Your task to perform on an android device: What's on my calendar tomorrow? Image 0: 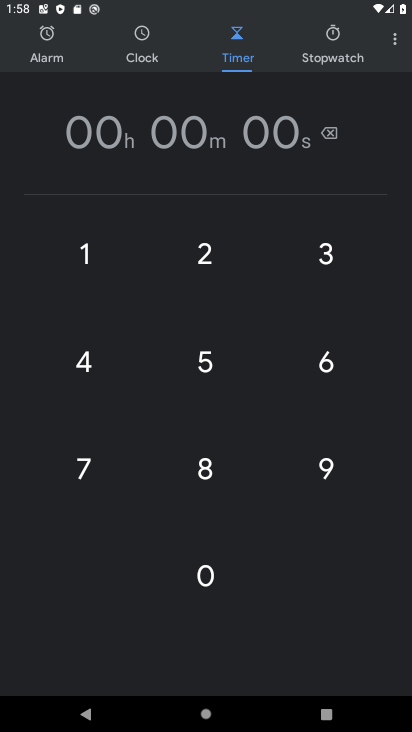
Step 0: press home button
Your task to perform on an android device: What's on my calendar tomorrow? Image 1: 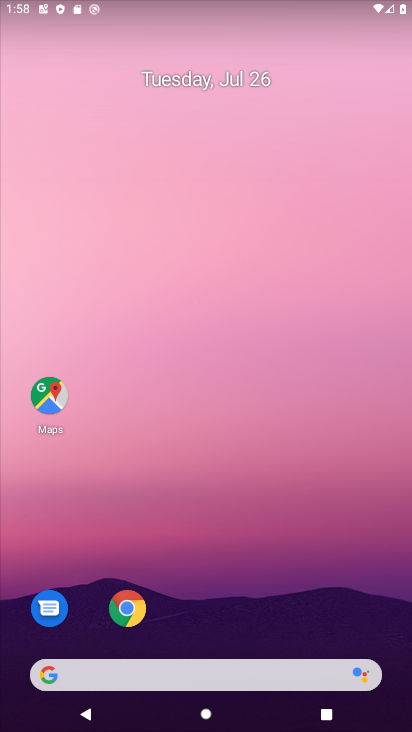
Step 1: drag from (234, 613) to (182, 264)
Your task to perform on an android device: What's on my calendar tomorrow? Image 2: 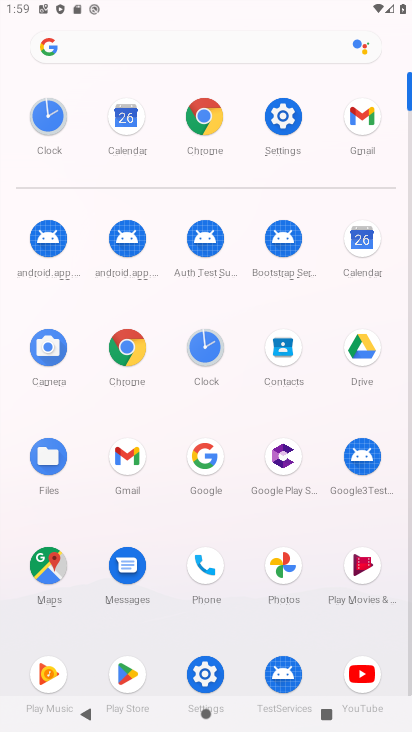
Step 2: click (357, 241)
Your task to perform on an android device: What's on my calendar tomorrow? Image 3: 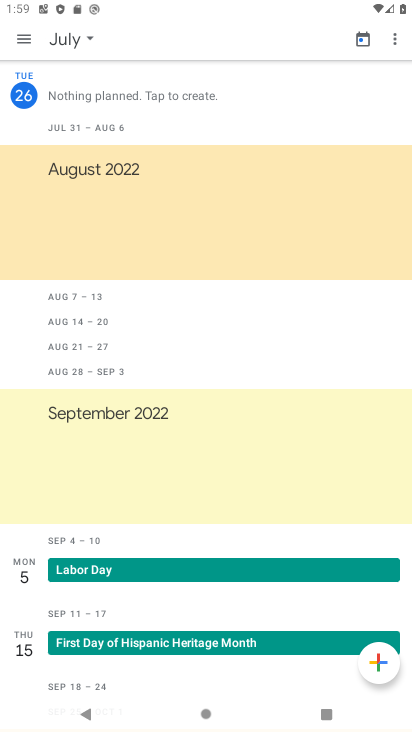
Step 3: task complete